Your task to perform on an android device: turn off location history Image 0: 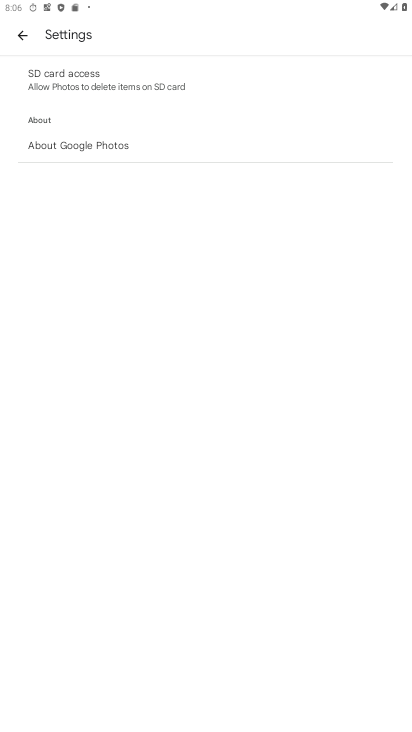
Step 0: press home button
Your task to perform on an android device: turn off location history Image 1: 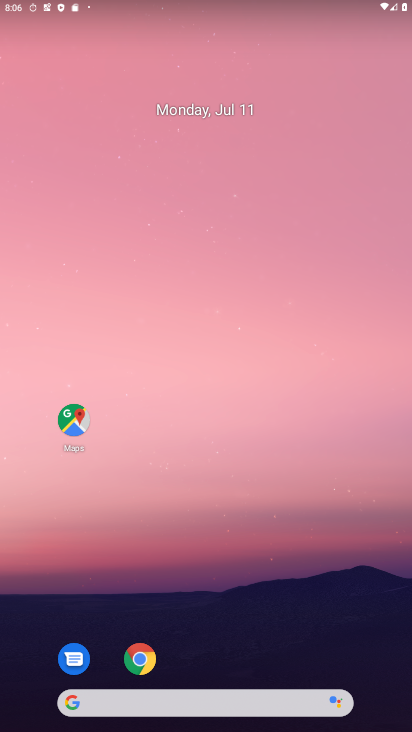
Step 1: drag from (243, 595) to (199, 8)
Your task to perform on an android device: turn off location history Image 2: 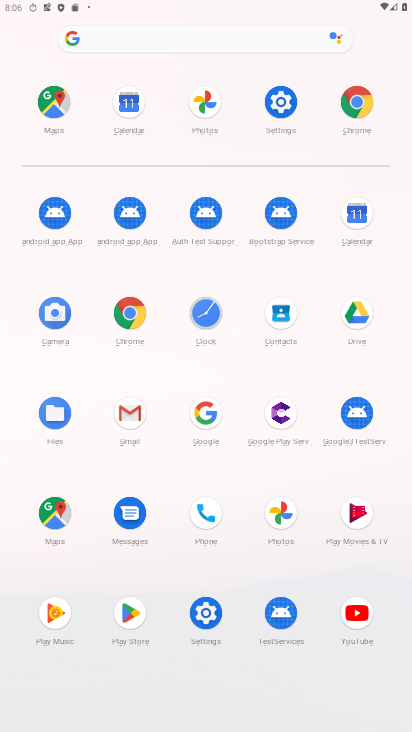
Step 2: click (273, 104)
Your task to perform on an android device: turn off location history Image 3: 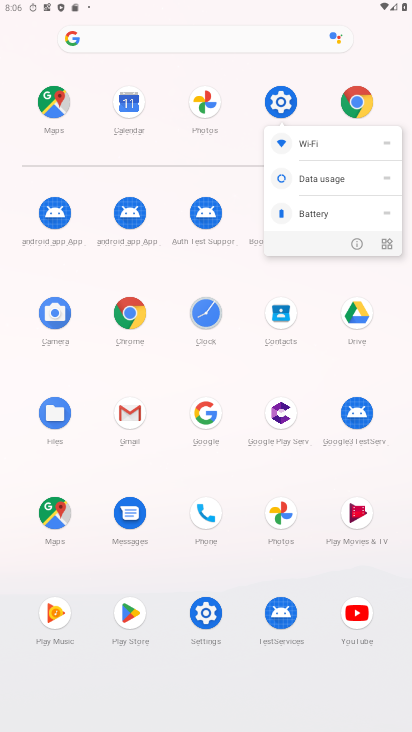
Step 3: click (281, 95)
Your task to perform on an android device: turn off location history Image 4: 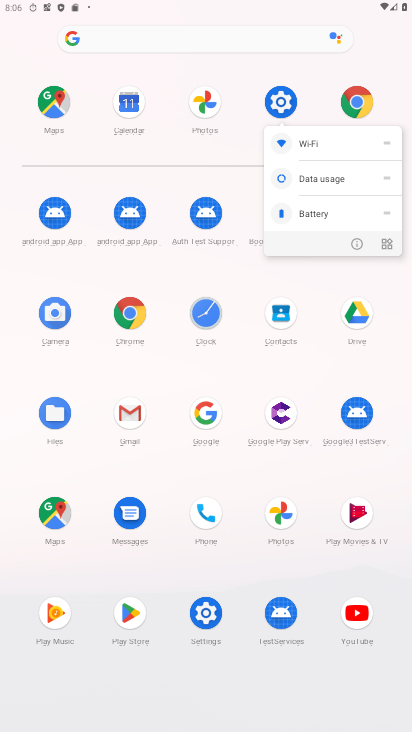
Step 4: click (282, 104)
Your task to perform on an android device: turn off location history Image 5: 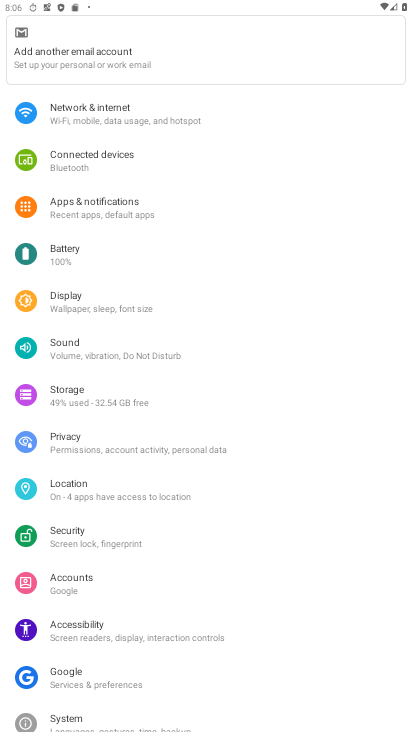
Step 5: click (82, 487)
Your task to perform on an android device: turn off location history Image 6: 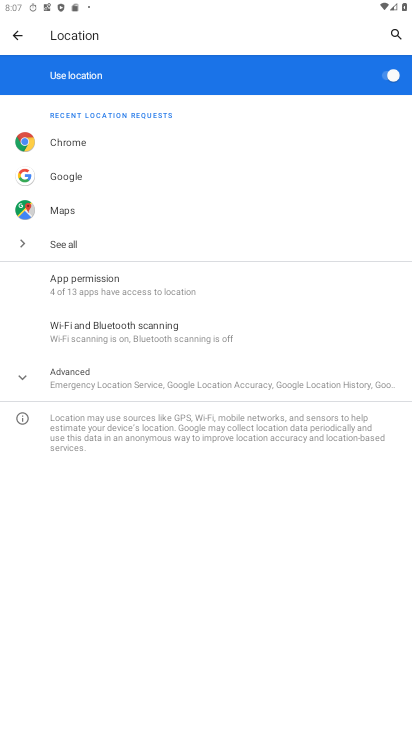
Step 6: click (136, 382)
Your task to perform on an android device: turn off location history Image 7: 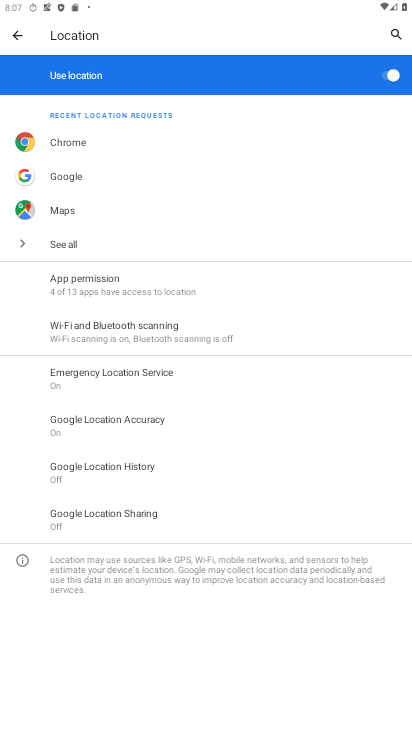
Step 7: click (67, 470)
Your task to perform on an android device: turn off location history Image 8: 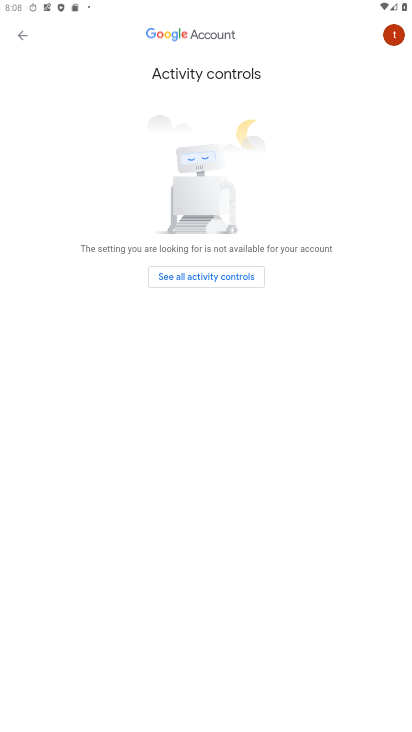
Step 8: task complete